Your task to perform on an android device: turn on the 24-hour format for clock Image 0: 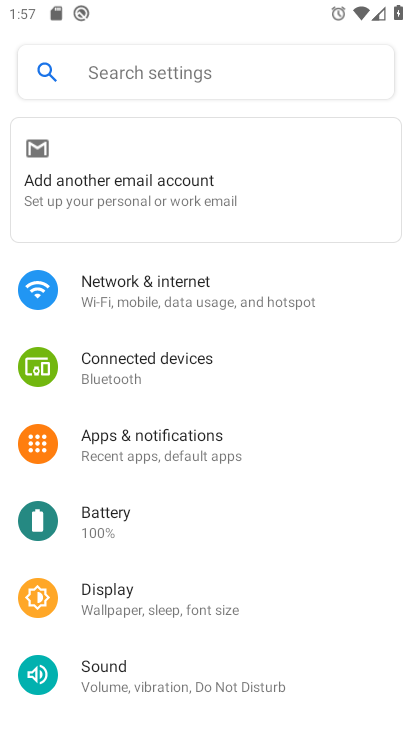
Step 0: drag from (171, 642) to (260, 267)
Your task to perform on an android device: turn on the 24-hour format for clock Image 1: 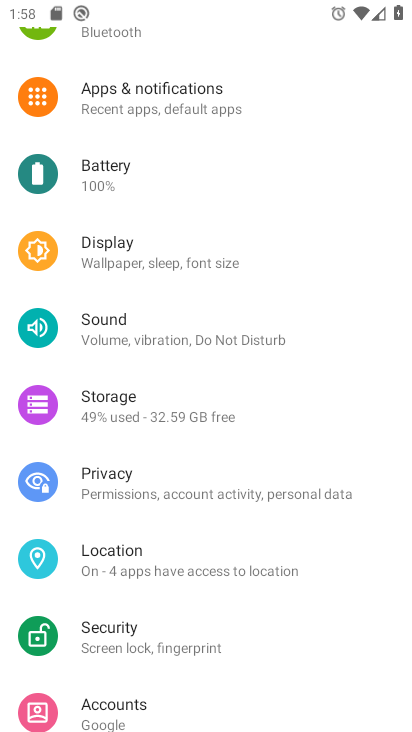
Step 1: drag from (245, 450) to (301, 246)
Your task to perform on an android device: turn on the 24-hour format for clock Image 2: 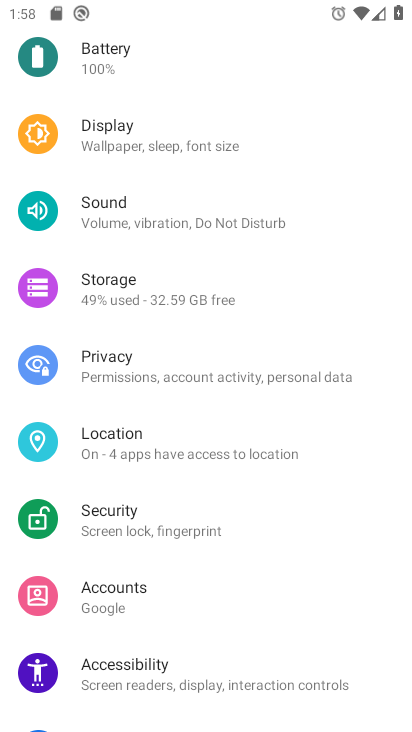
Step 2: drag from (224, 588) to (281, 224)
Your task to perform on an android device: turn on the 24-hour format for clock Image 3: 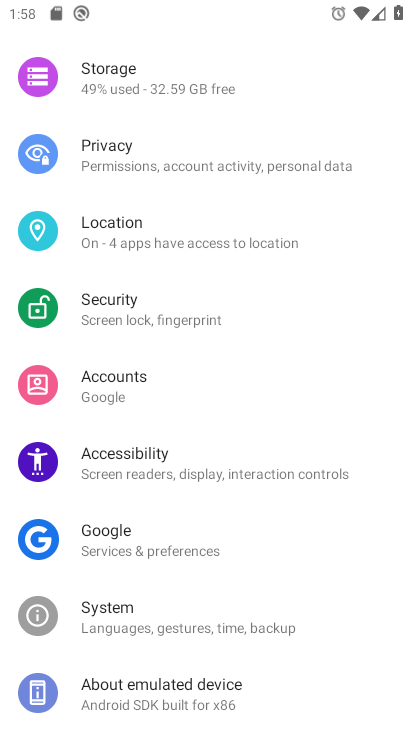
Step 3: click (183, 631)
Your task to perform on an android device: turn on the 24-hour format for clock Image 4: 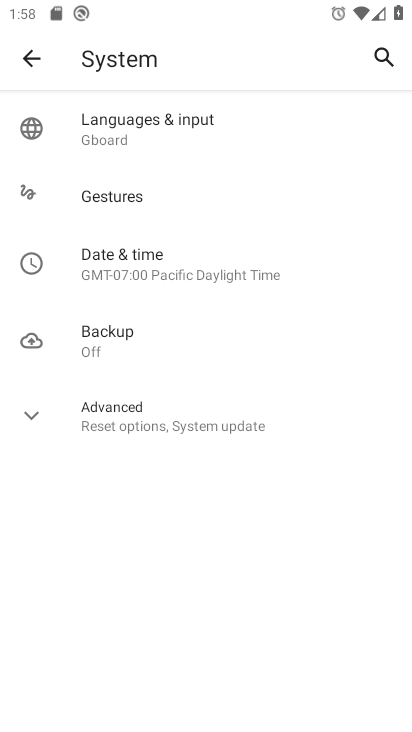
Step 4: click (150, 260)
Your task to perform on an android device: turn on the 24-hour format for clock Image 5: 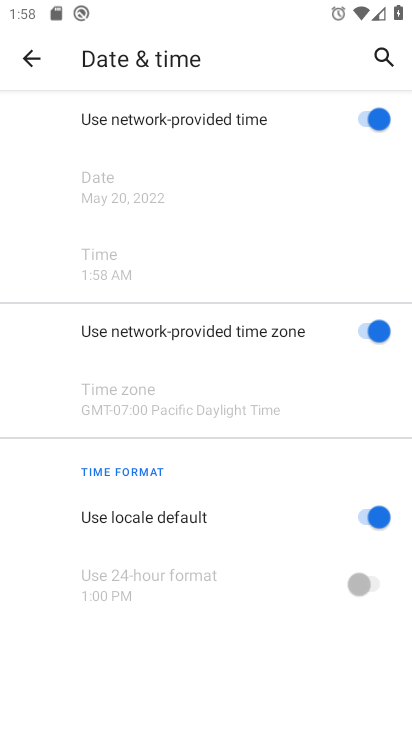
Step 5: click (359, 514)
Your task to perform on an android device: turn on the 24-hour format for clock Image 6: 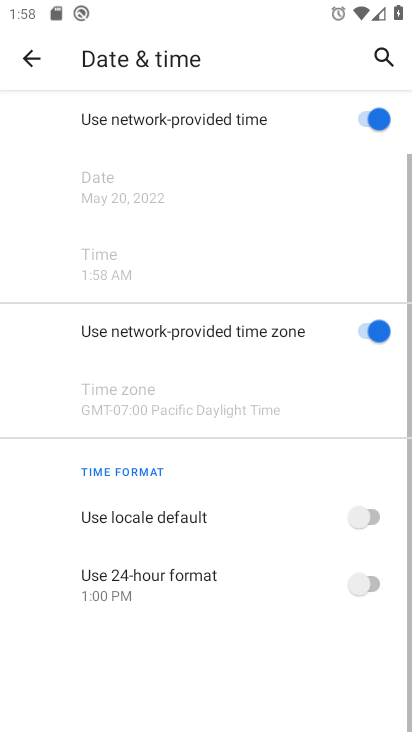
Step 6: click (388, 584)
Your task to perform on an android device: turn on the 24-hour format for clock Image 7: 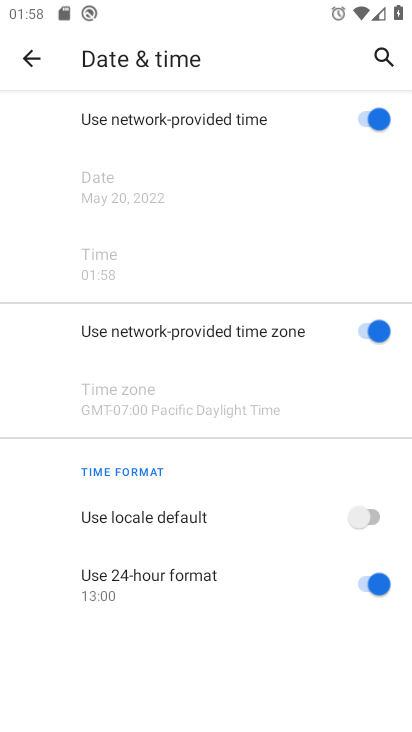
Step 7: task complete